Your task to perform on an android device: What's the weather going to be this weekend? Image 0: 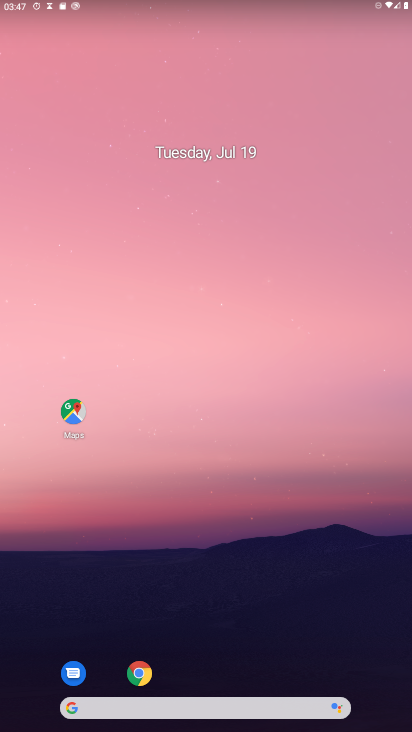
Step 0: click (206, 702)
Your task to perform on an android device: What's the weather going to be this weekend? Image 1: 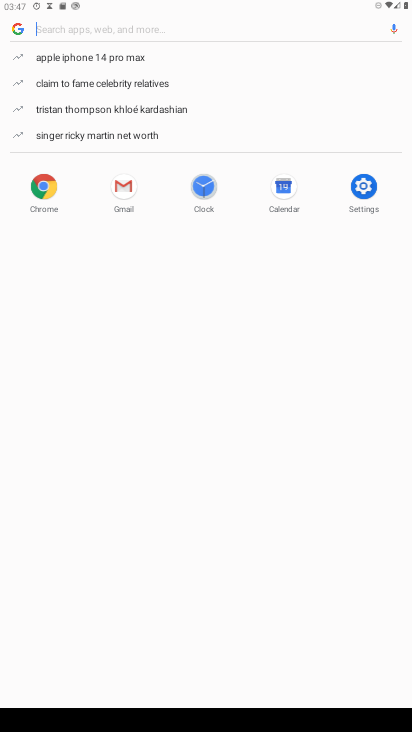
Step 1: type "weather"
Your task to perform on an android device: What's the weather going to be this weekend? Image 2: 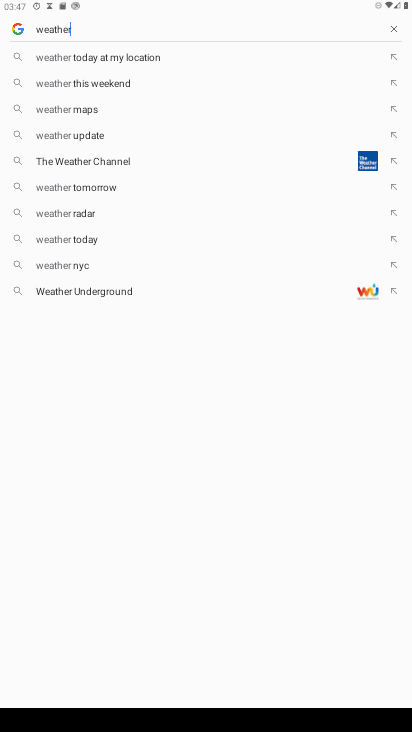
Step 2: click (76, 241)
Your task to perform on an android device: What's the weather going to be this weekend? Image 3: 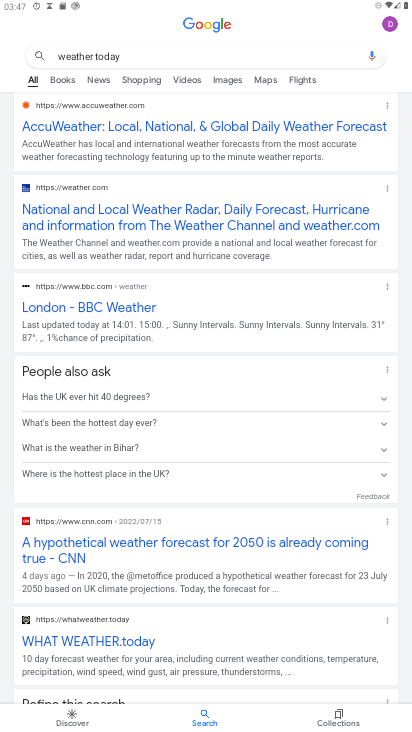
Step 3: click (113, 129)
Your task to perform on an android device: What's the weather going to be this weekend? Image 4: 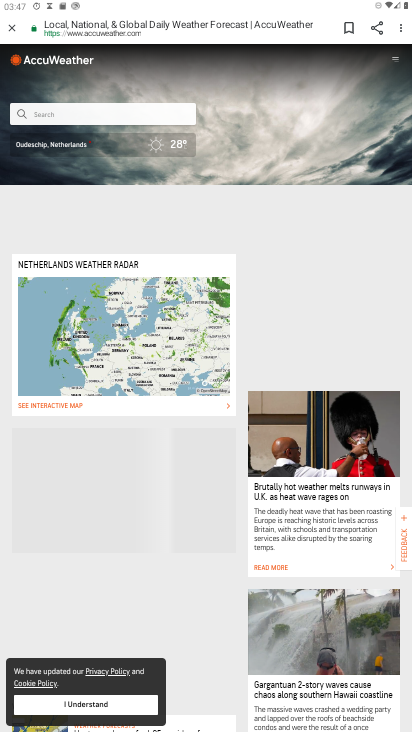
Step 4: task complete